Your task to perform on an android device: turn on airplane mode Image 0: 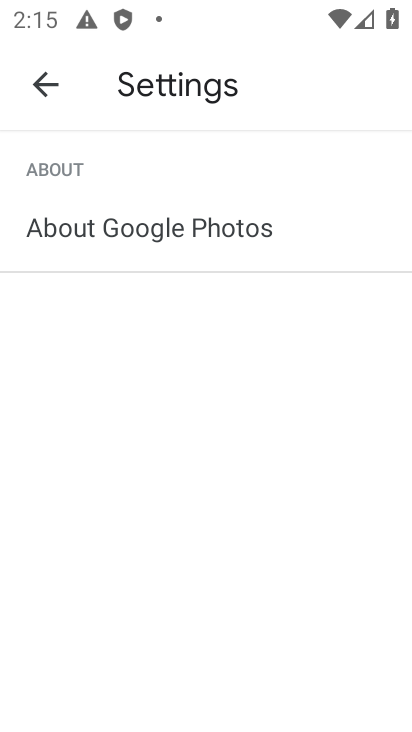
Step 0: press home button
Your task to perform on an android device: turn on airplane mode Image 1: 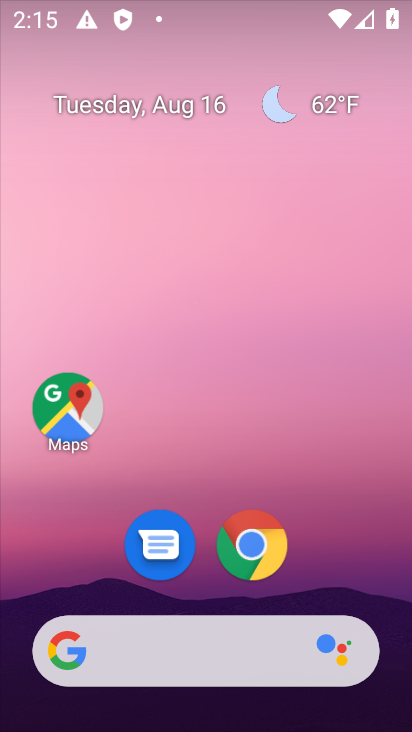
Step 1: drag from (189, 632) to (139, 286)
Your task to perform on an android device: turn on airplane mode Image 2: 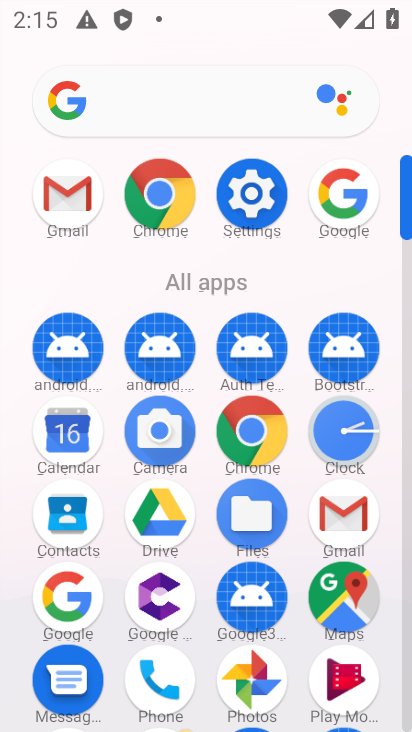
Step 2: click (241, 198)
Your task to perform on an android device: turn on airplane mode Image 3: 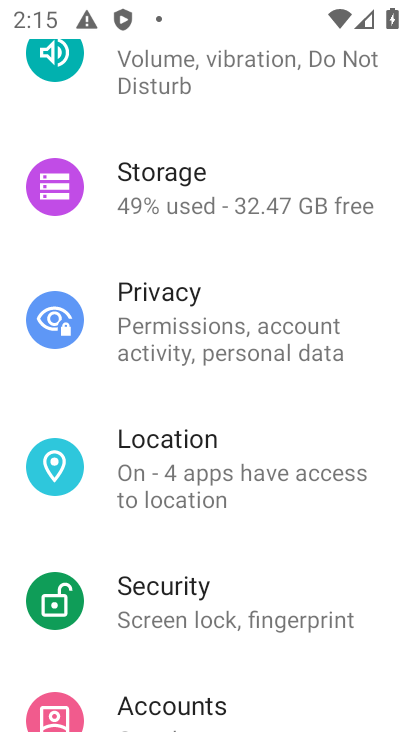
Step 3: drag from (192, 168) to (151, 563)
Your task to perform on an android device: turn on airplane mode Image 4: 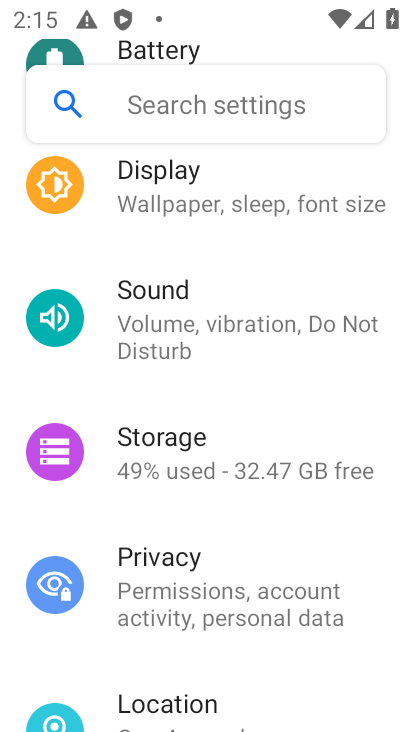
Step 4: drag from (181, 189) to (179, 566)
Your task to perform on an android device: turn on airplane mode Image 5: 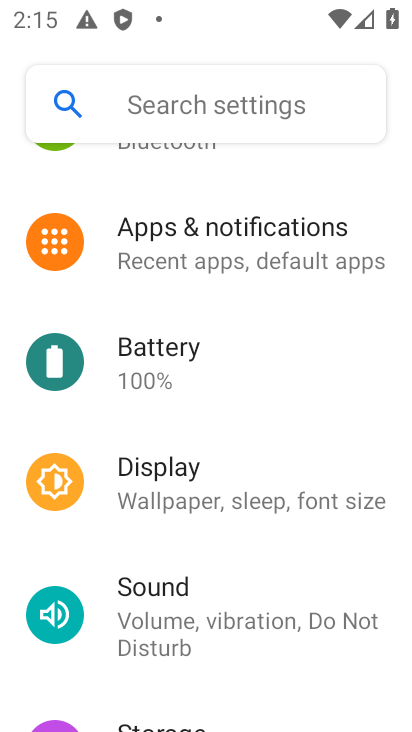
Step 5: drag from (224, 231) to (229, 571)
Your task to perform on an android device: turn on airplane mode Image 6: 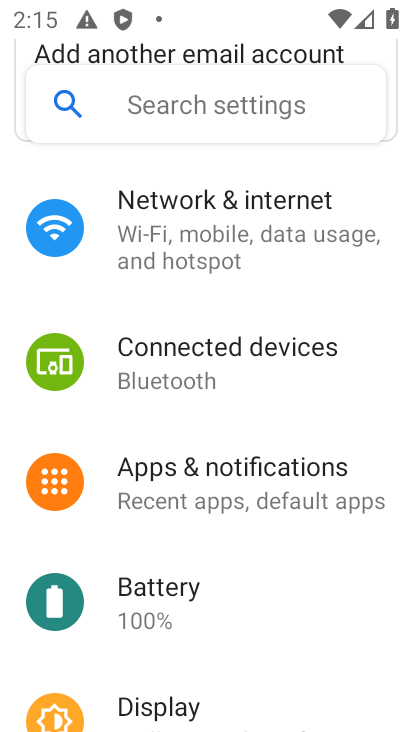
Step 6: click (212, 238)
Your task to perform on an android device: turn on airplane mode Image 7: 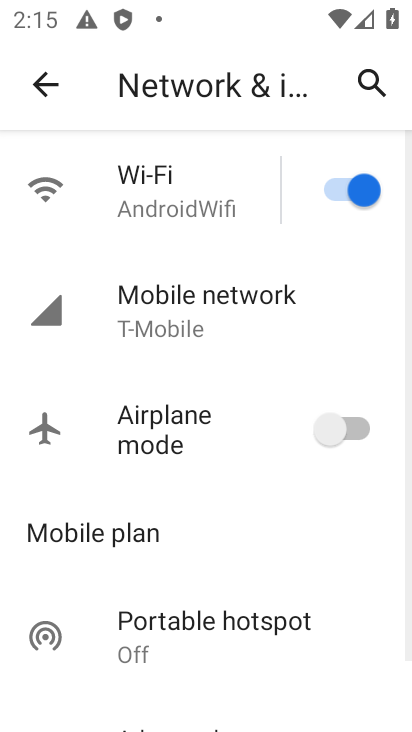
Step 7: click (342, 430)
Your task to perform on an android device: turn on airplane mode Image 8: 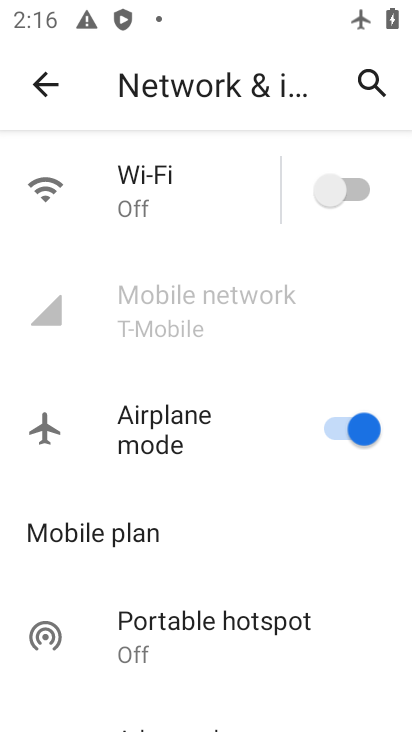
Step 8: task complete